Your task to perform on an android device: Open notification settings Image 0: 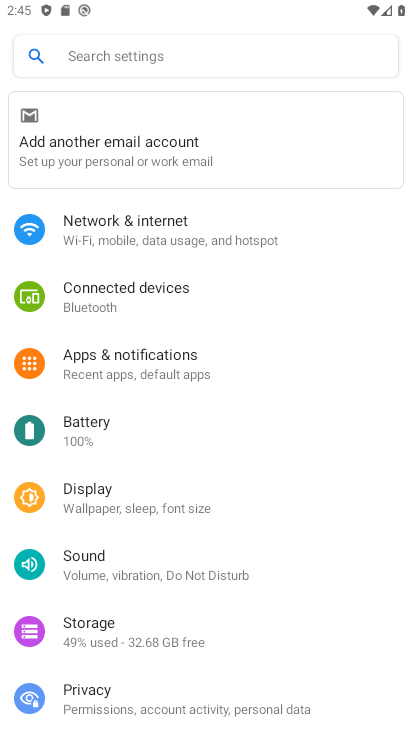
Step 0: click (253, 363)
Your task to perform on an android device: Open notification settings Image 1: 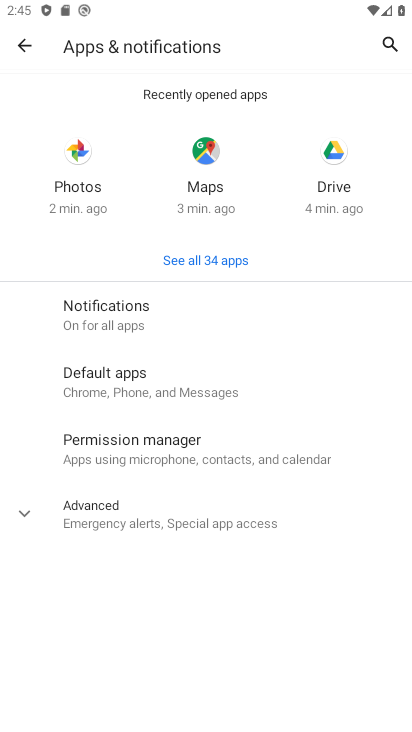
Step 1: click (164, 312)
Your task to perform on an android device: Open notification settings Image 2: 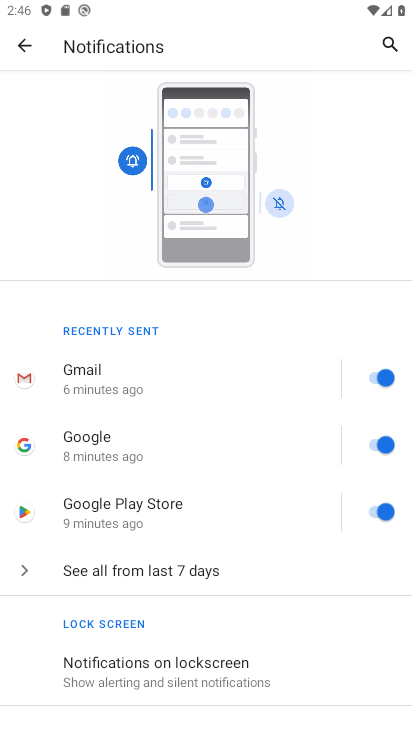
Step 2: task complete